Your task to perform on an android device: open the mobile data screen to see how much data has been used Image 0: 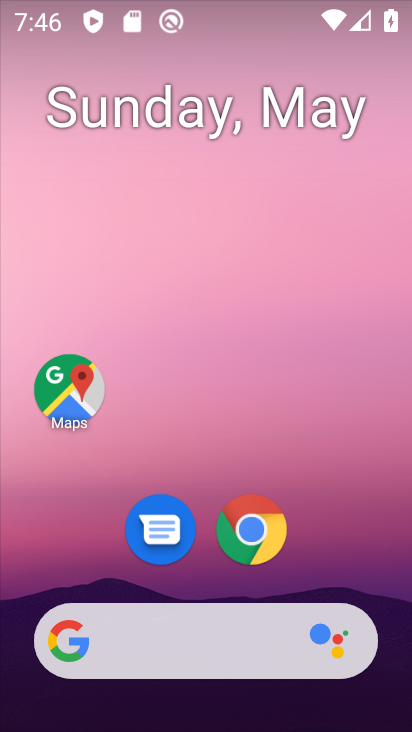
Step 0: drag from (368, 558) to (351, 104)
Your task to perform on an android device: open the mobile data screen to see how much data has been used Image 1: 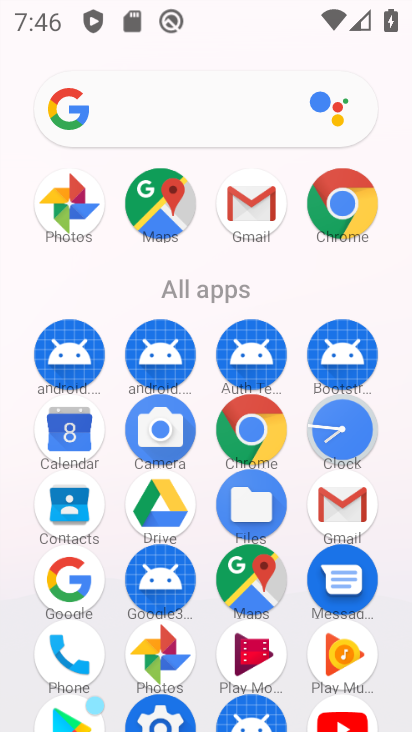
Step 1: click (167, 707)
Your task to perform on an android device: open the mobile data screen to see how much data has been used Image 2: 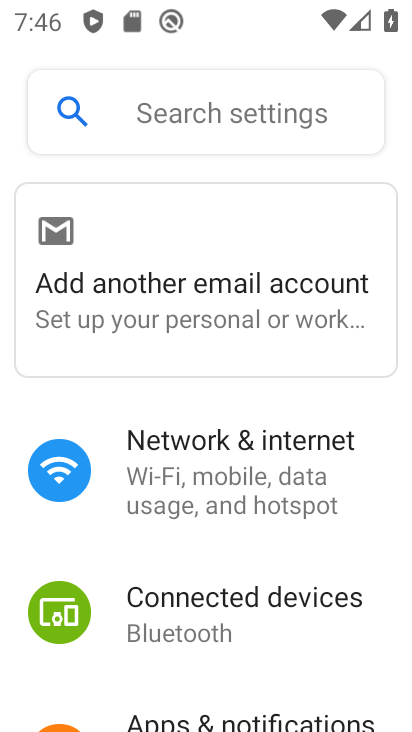
Step 2: click (229, 471)
Your task to perform on an android device: open the mobile data screen to see how much data has been used Image 3: 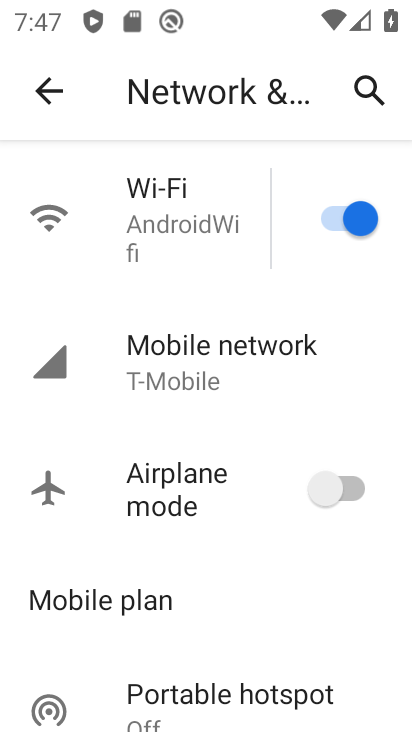
Step 3: drag from (233, 510) to (232, 209)
Your task to perform on an android device: open the mobile data screen to see how much data has been used Image 4: 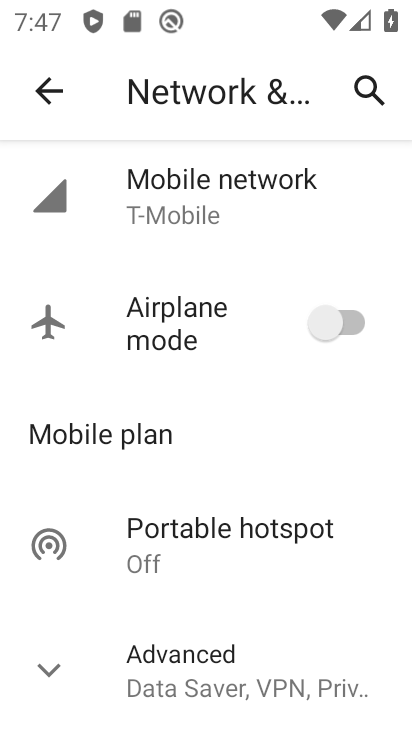
Step 4: drag from (213, 182) to (209, 427)
Your task to perform on an android device: open the mobile data screen to see how much data has been used Image 5: 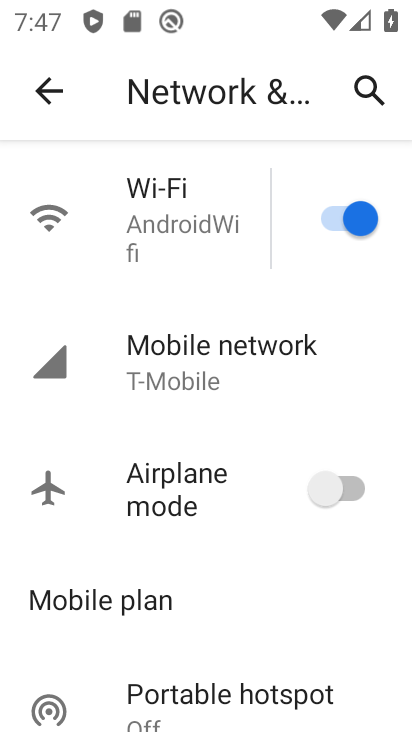
Step 5: click (212, 361)
Your task to perform on an android device: open the mobile data screen to see how much data has been used Image 6: 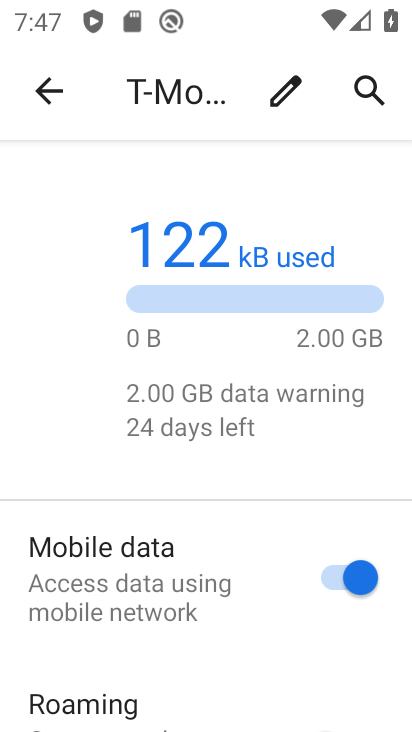
Step 6: drag from (158, 618) to (164, 270)
Your task to perform on an android device: open the mobile data screen to see how much data has been used Image 7: 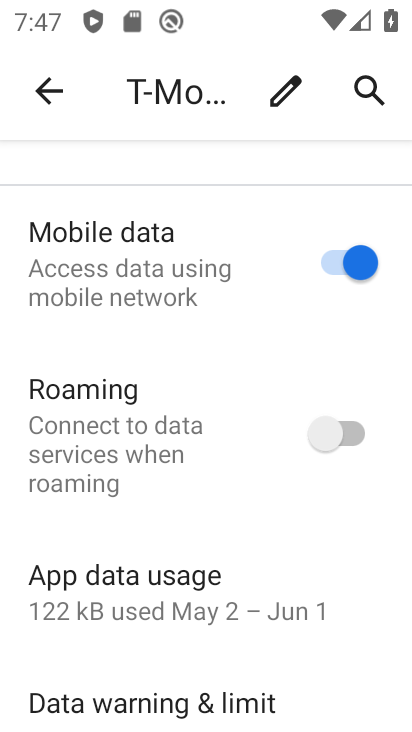
Step 7: drag from (137, 580) to (149, 309)
Your task to perform on an android device: open the mobile data screen to see how much data has been used Image 8: 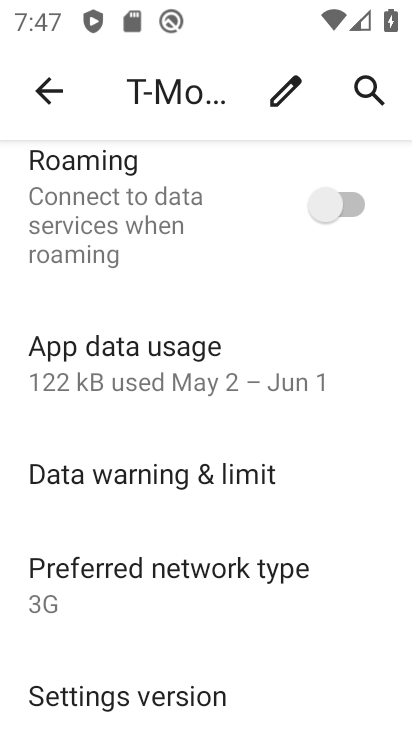
Step 8: click (145, 465)
Your task to perform on an android device: open the mobile data screen to see how much data has been used Image 9: 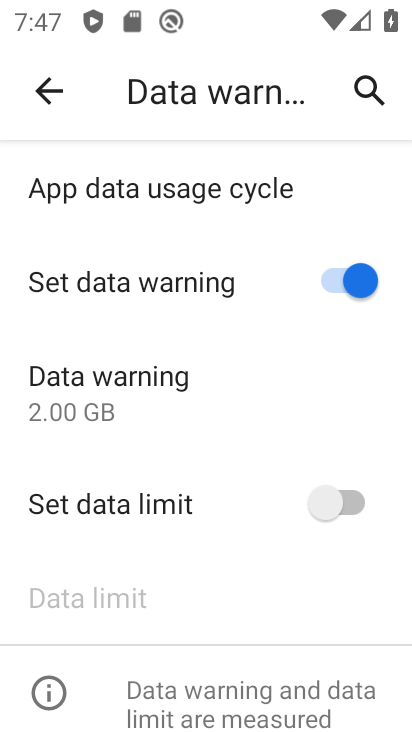
Step 9: task complete